Your task to perform on an android device: check google app version Image 0: 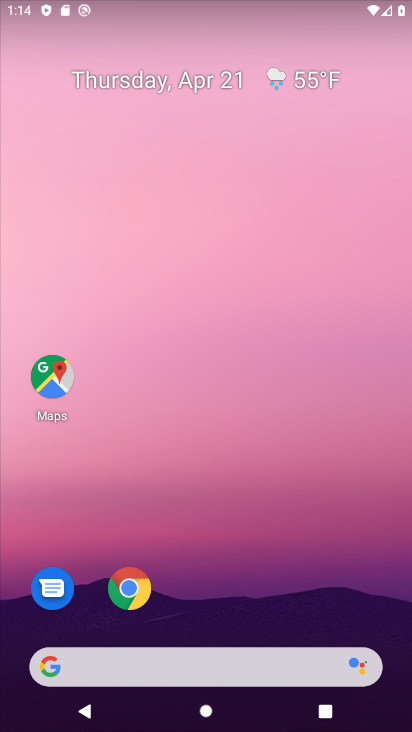
Step 0: drag from (178, 640) to (272, 99)
Your task to perform on an android device: check google app version Image 1: 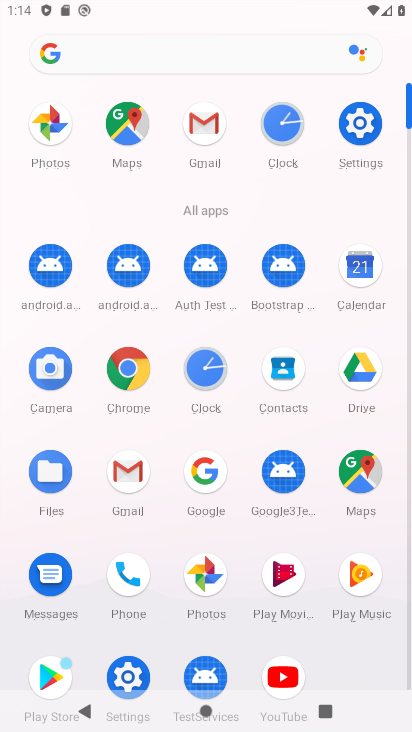
Step 1: click (134, 683)
Your task to perform on an android device: check google app version Image 2: 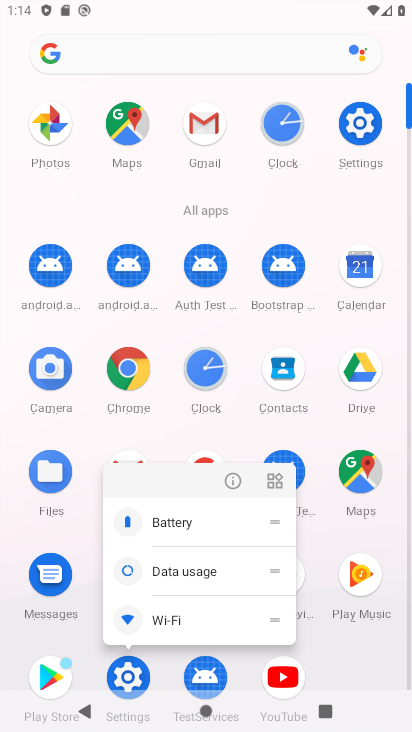
Step 2: click (131, 679)
Your task to perform on an android device: check google app version Image 3: 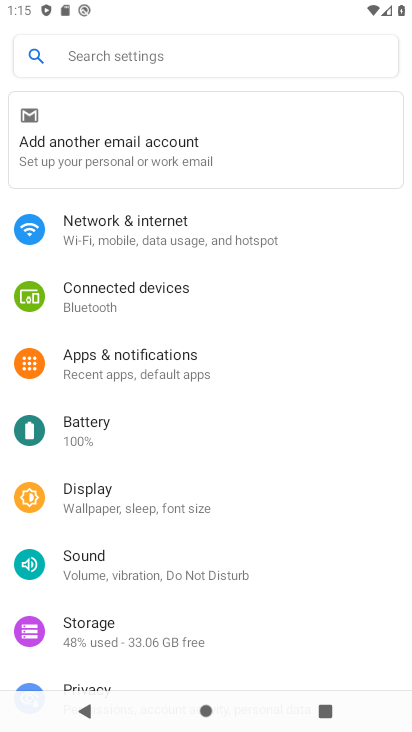
Step 3: click (150, 368)
Your task to perform on an android device: check google app version Image 4: 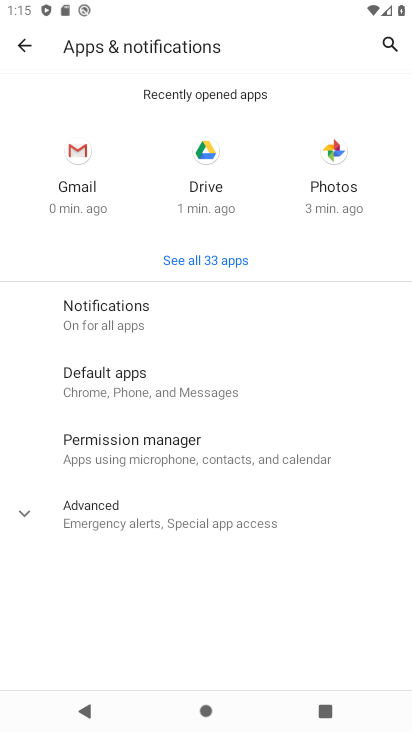
Step 4: click (231, 254)
Your task to perform on an android device: check google app version Image 5: 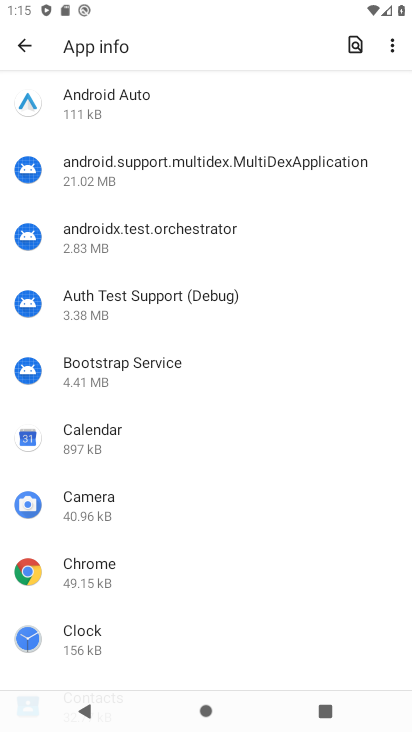
Step 5: drag from (163, 634) to (182, 383)
Your task to perform on an android device: check google app version Image 6: 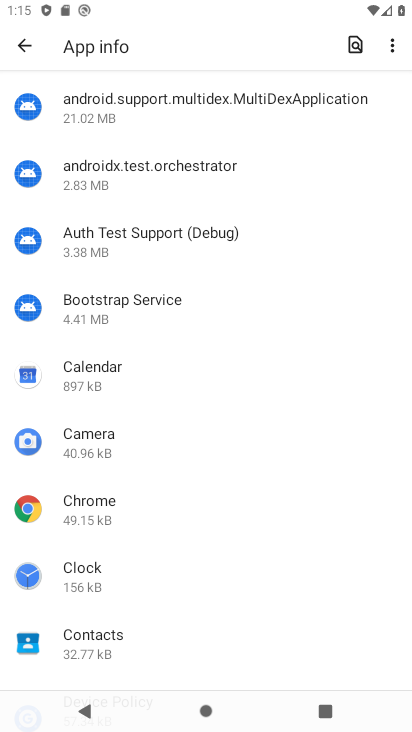
Step 6: drag from (174, 517) to (270, 142)
Your task to perform on an android device: check google app version Image 7: 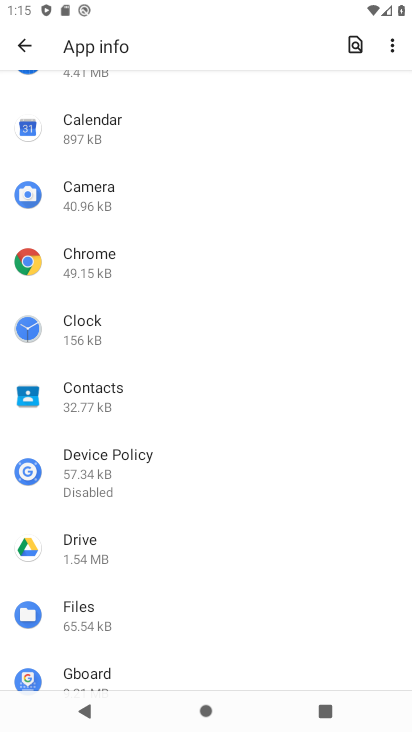
Step 7: drag from (203, 573) to (291, 170)
Your task to perform on an android device: check google app version Image 8: 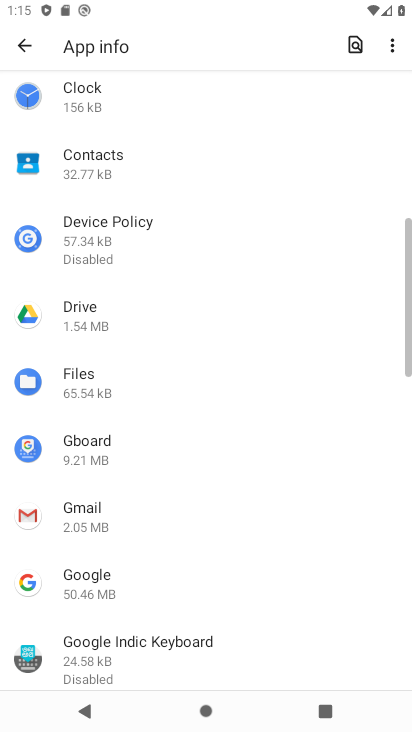
Step 8: click (131, 578)
Your task to perform on an android device: check google app version Image 9: 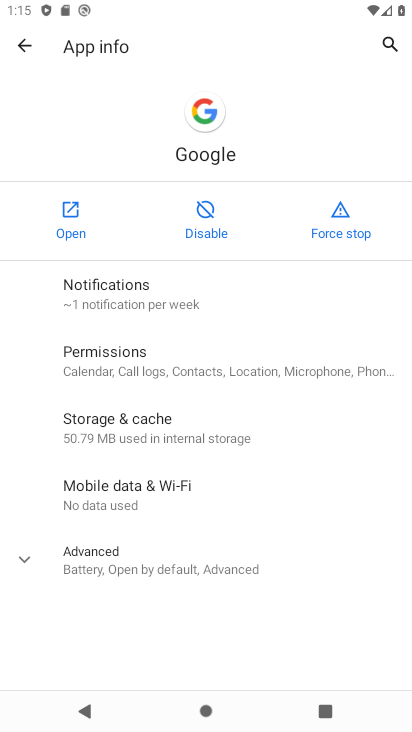
Step 9: click (220, 565)
Your task to perform on an android device: check google app version Image 10: 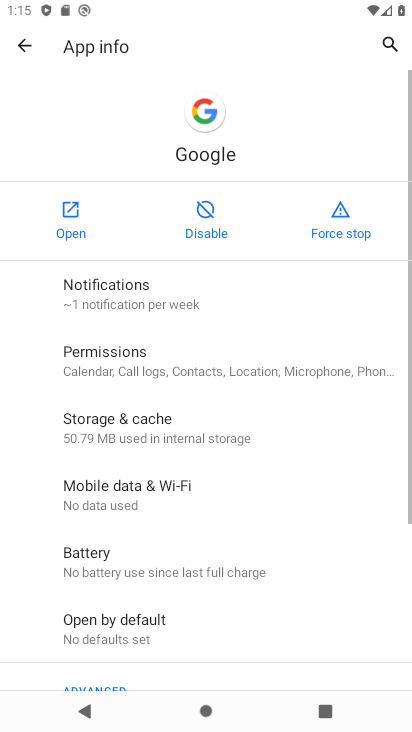
Step 10: task complete